Your task to perform on an android device: Go to Maps Image 0: 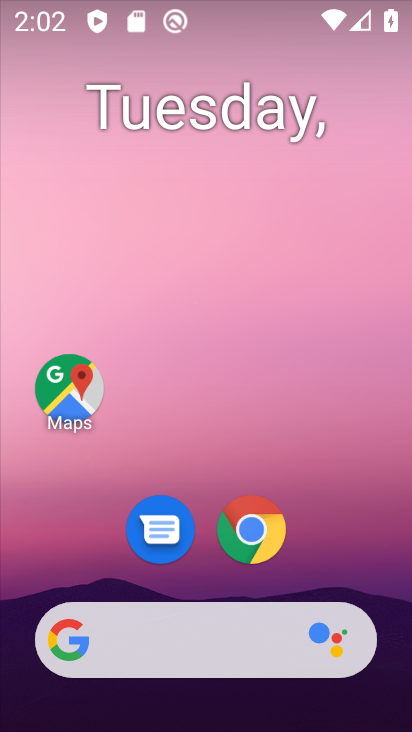
Step 0: click (76, 396)
Your task to perform on an android device: Go to Maps Image 1: 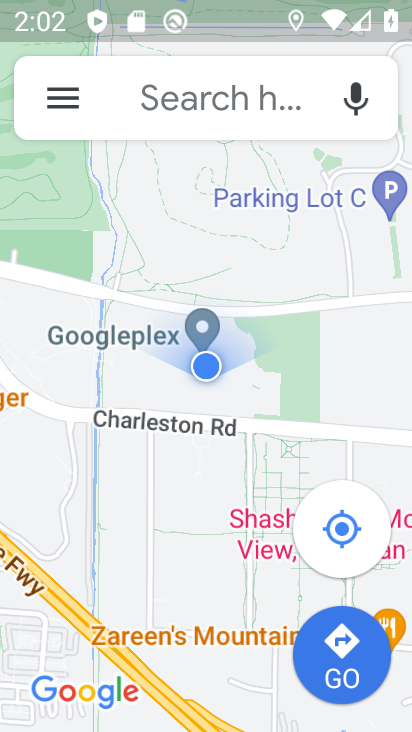
Step 1: task complete